Your task to perform on an android device: Open Wikipedia Image 0: 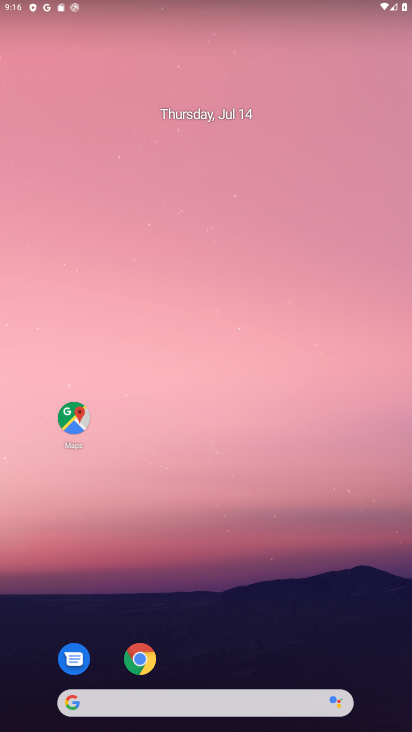
Step 0: click (151, 661)
Your task to perform on an android device: Open Wikipedia Image 1: 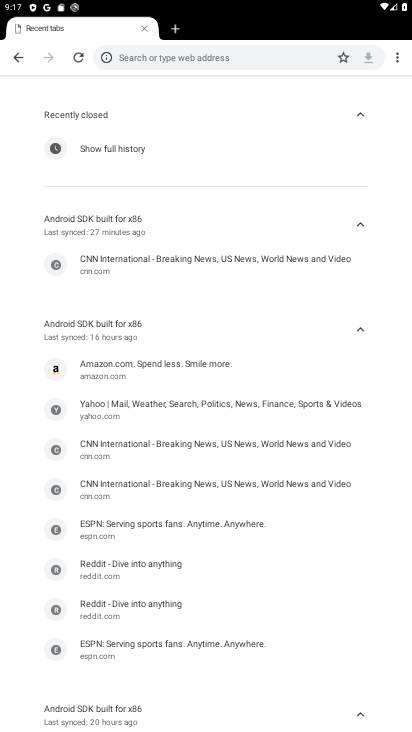
Step 1: click (16, 58)
Your task to perform on an android device: Open Wikipedia Image 2: 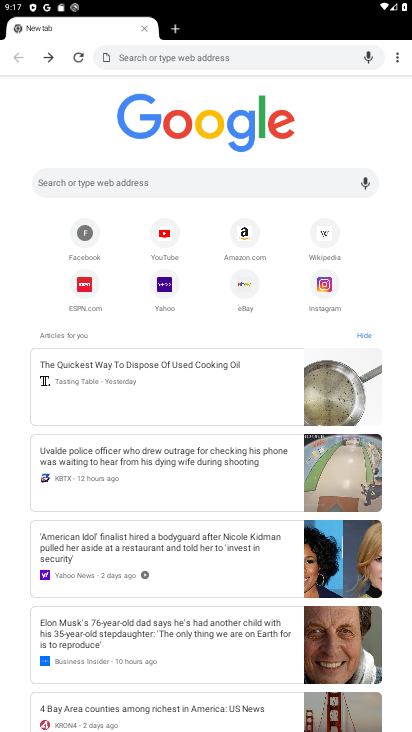
Step 2: click (323, 231)
Your task to perform on an android device: Open Wikipedia Image 3: 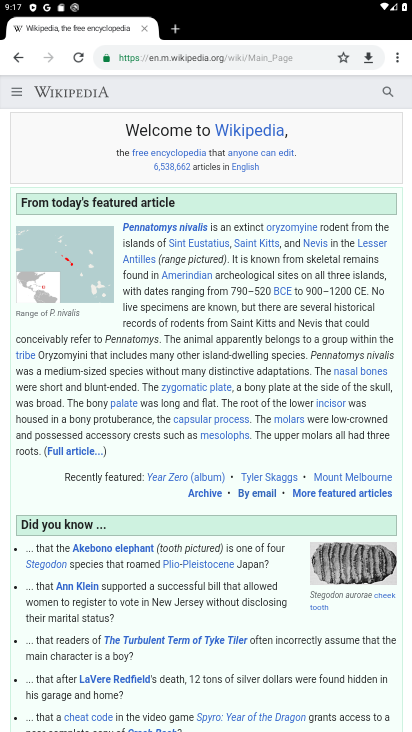
Step 3: task complete